Your task to perform on an android device: Open calendar and show me the fourth week of next month Image 0: 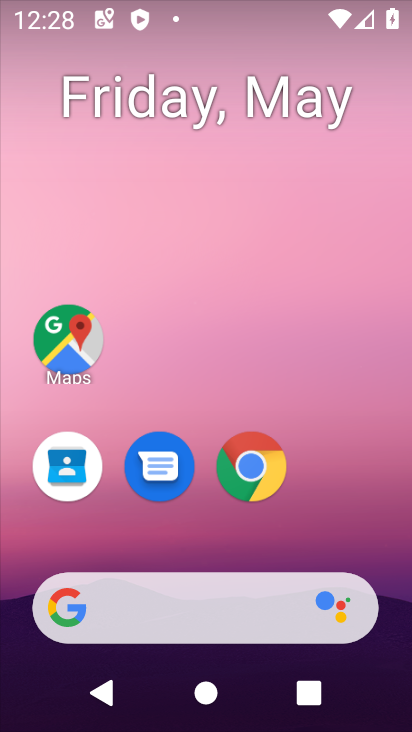
Step 0: drag from (220, 542) to (56, 0)
Your task to perform on an android device: Open calendar and show me the fourth week of next month Image 1: 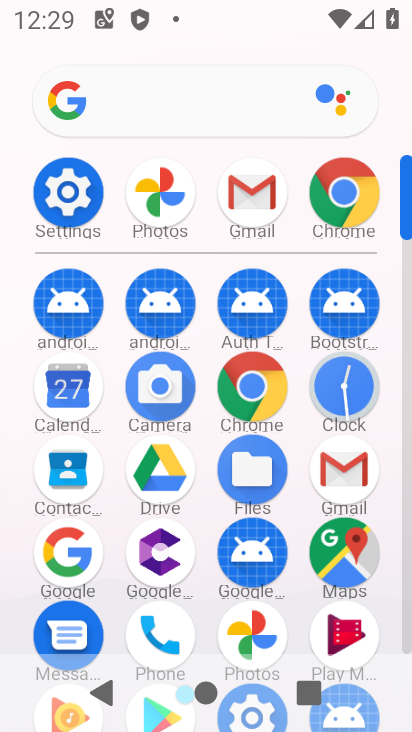
Step 1: click (77, 413)
Your task to perform on an android device: Open calendar and show me the fourth week of next month Image 2: 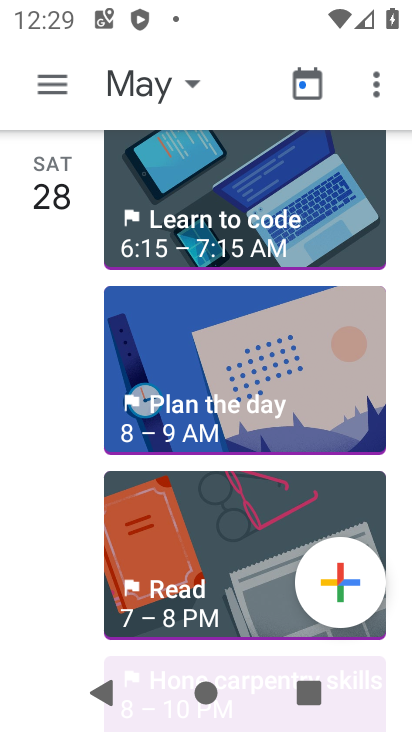
Step 2: click (53, 88)
Your task to perform on an android device: Open calendar and show me the fourth week of next month Image 3: 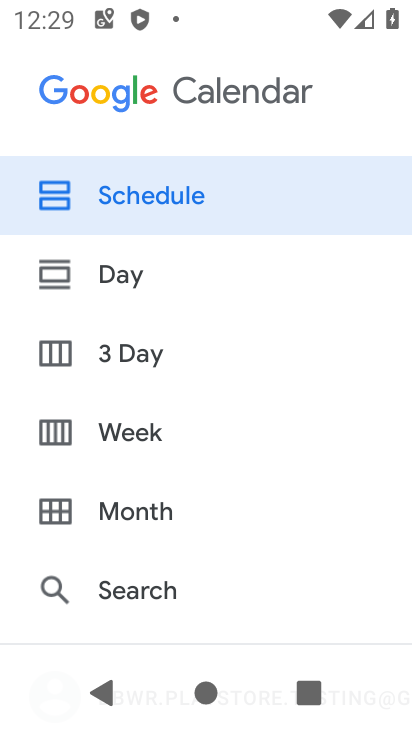
Step 3: click (123, 430)
Your task to perform on an android device: Open calendar and show me the fourth week of next month Image 4: 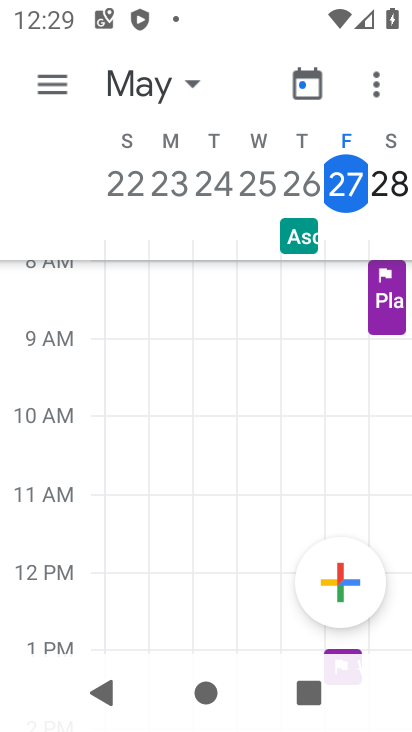
Step 4: click (122, 75)
Your task to perform on an android device: Open calendar and show me the fourth week of next month Image 5: 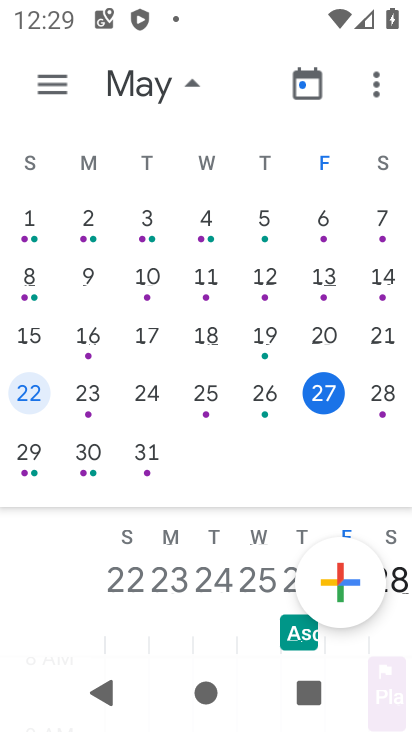
Step 5: drag from (389, 301) to (155, 301)
Your task to perform on an android device: Open calendar and show me the fourth week of next month Image 6: 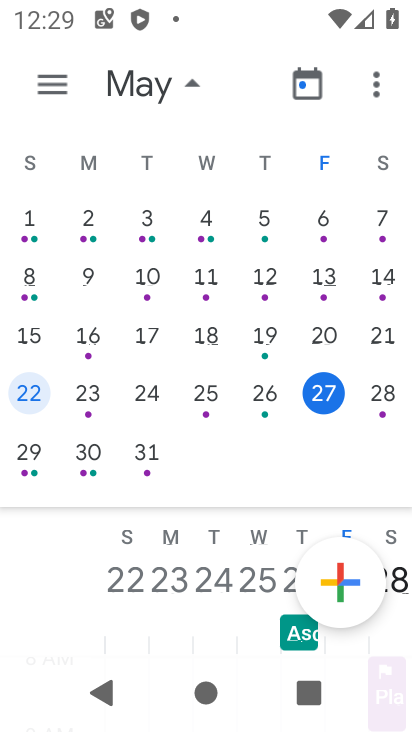
Step 6: drag from (252, 301) to (22, 324)
Your task to perform on an android device: Open calendar and show me the fourth week of next month Image 7: 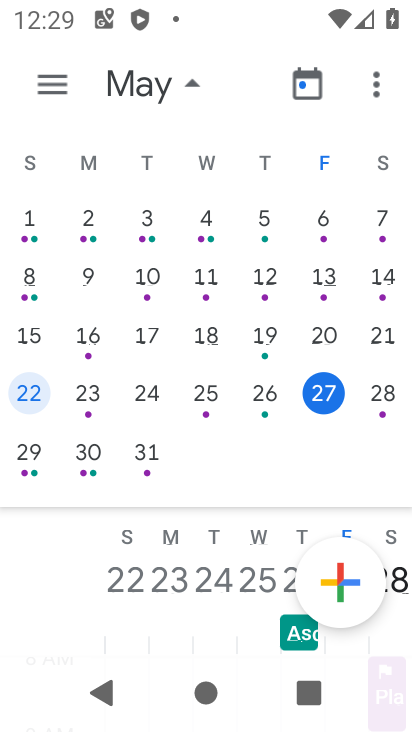
Step 7: drag from (279, 280) to (53, 311)
Your task to perform on an android device: Open calendar and show me the fourth week of next month Image 8: 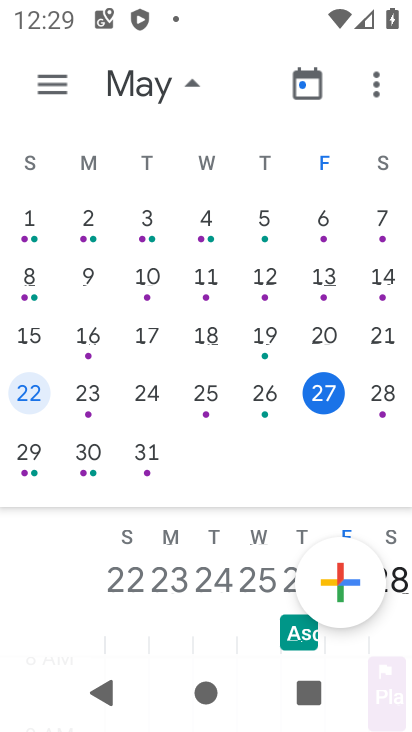
Step 8: drag from (354, 307) to (56, 294)
Your task to perform on an android device: Open calendar and show me the fourth week of next month Image 9: 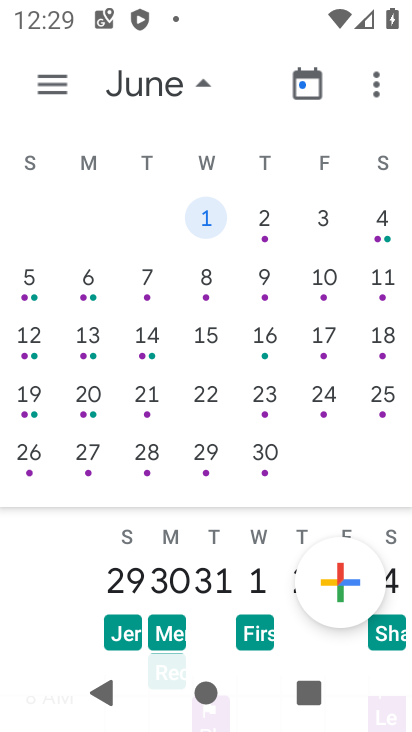
Step 9: click (27, 411)
Your task to perform on an android device: Open calendar and show me the fourth week of next month Image 10: 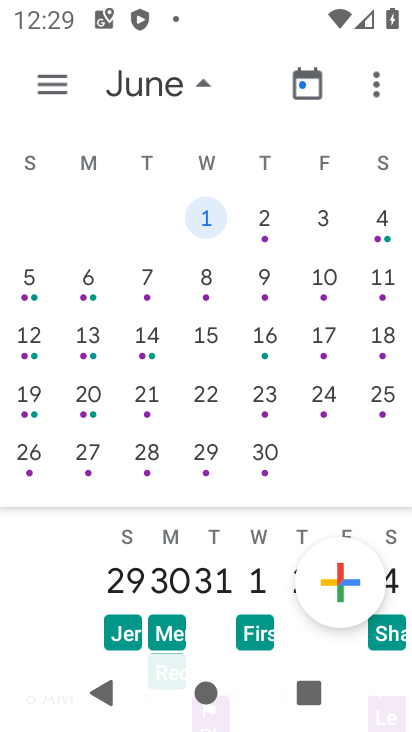
Step 10: click (33, 401)
Your task to perform on an android device: Open calendar and show me the fourth week of next month Image 11: 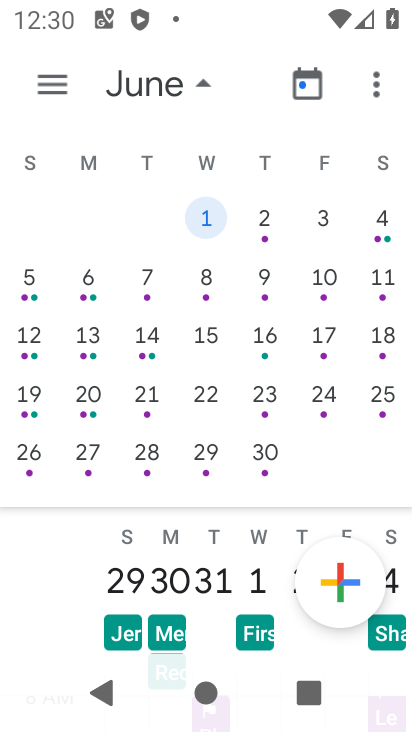
Step 11: drag from (218, 580) to (224, 233)
Your task to perform on an android device: Open calendar and show me the fourth week of next month Image 12: 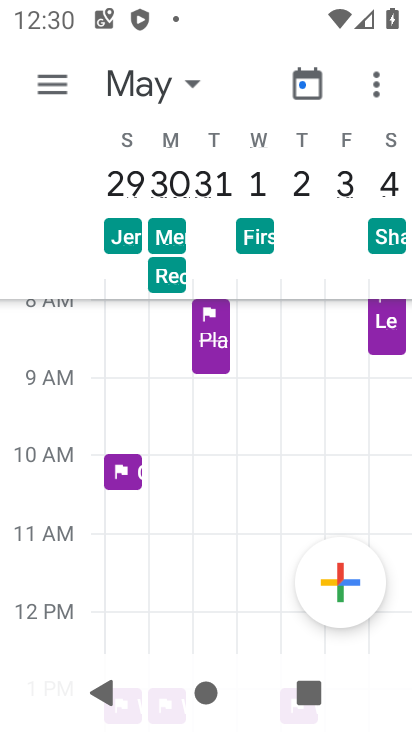
Step 12: click (144, 93)
Your task to perform on an android device: Open calendar and show me the fourth week of next month Image 13: 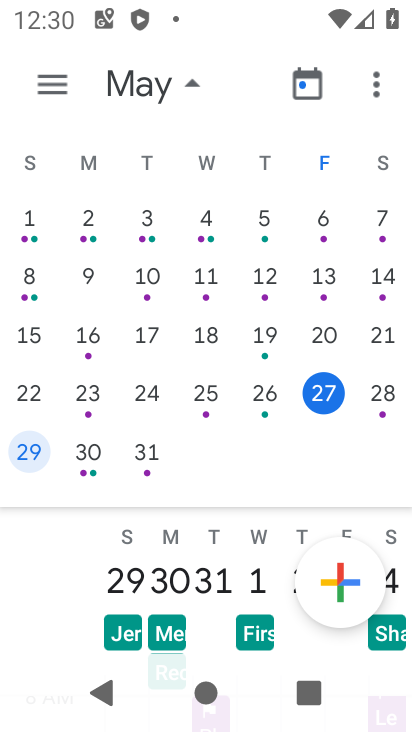
Step 13: drag from (361, 254) to (18, 276)
Your task to perform on an android device: Open calendar and show me the fourth week of next month Image 14: 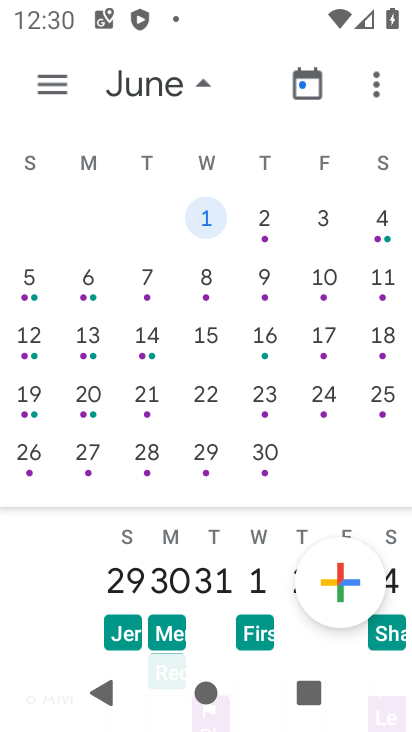
Step 14: click (27, 460)
Your task to perform on an android device: Open calendar and show me the fourth week of next month Image 15: 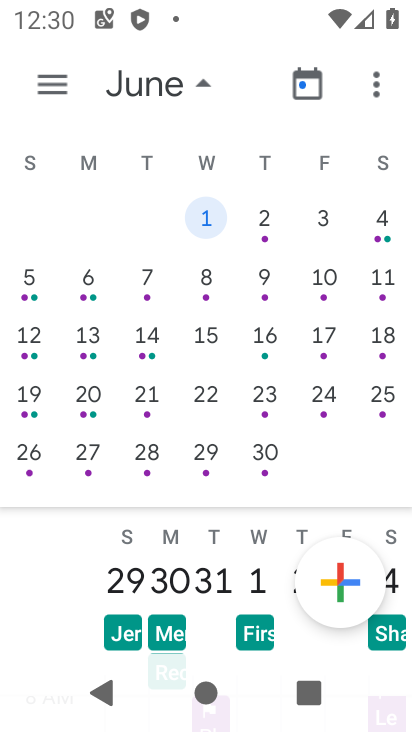
Step 15: click (35, 462)
Your task to perform on an android device: Open calendar and show me the fourth week of next month Image 16: 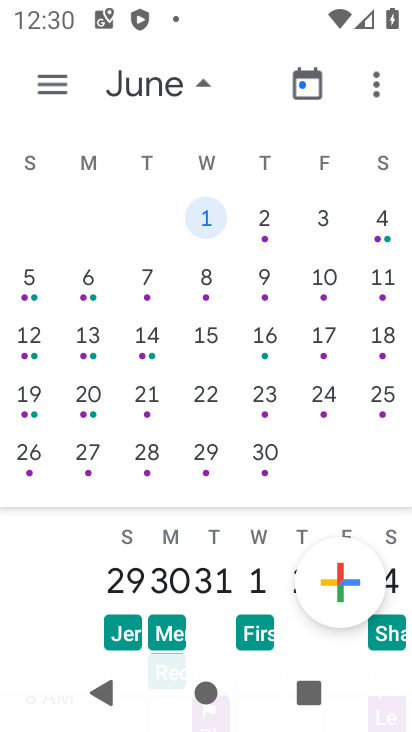
Step 16: click (33, 456)
Your task to perform on an android device: Open calendar and show me the fourth week of next month Image 17: 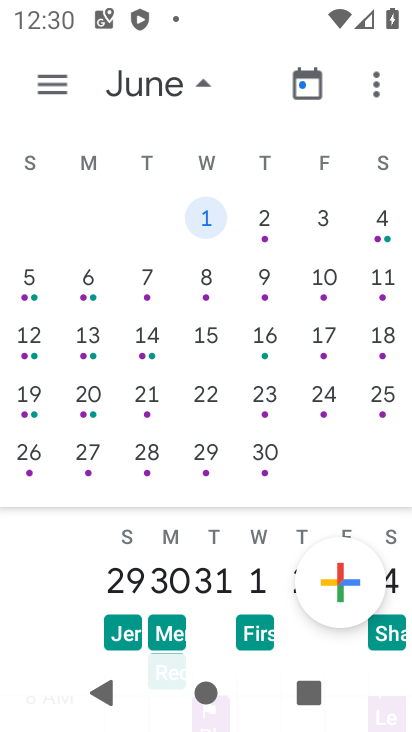
Step 17: click (35, 448)
Your task to perform on an android device: Open calendar and show me the fourth week of next month Image 18: 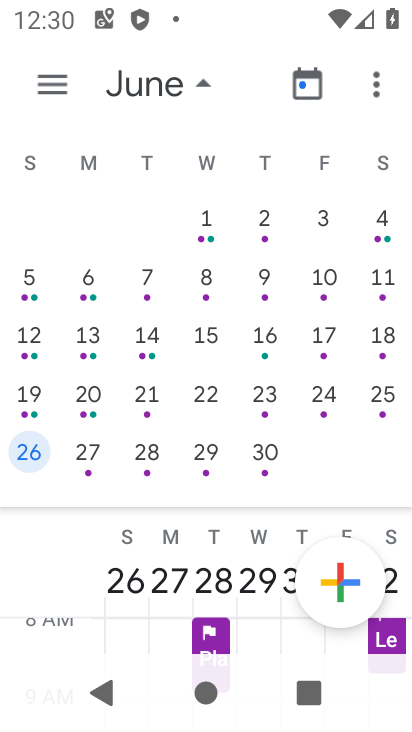
Step 18: task complete